Your task to perform on an android device: turn off data saver in the chrome app Image 0: 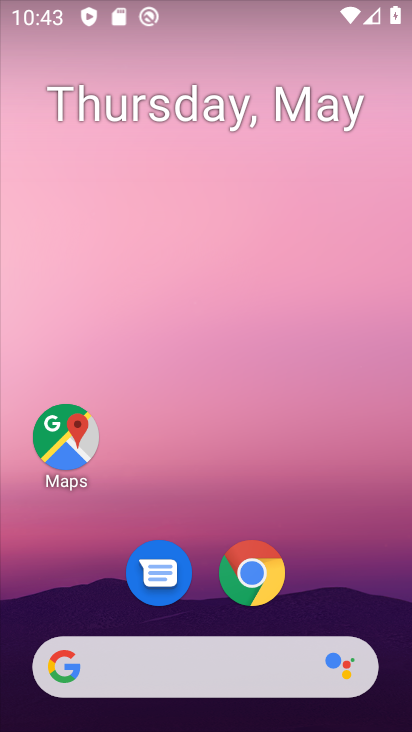
Step 0: click (252, 575)
Your task to perform on an android device: turn off data saver in the chrome app Image 1: 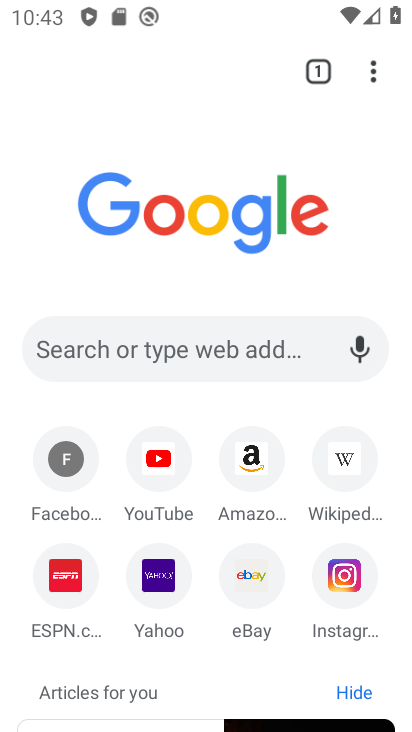
Step 1: drag from (389, 90) to (203, 617)
Your task to perform on an android device: turn off data saver in the chrome app Image 2: 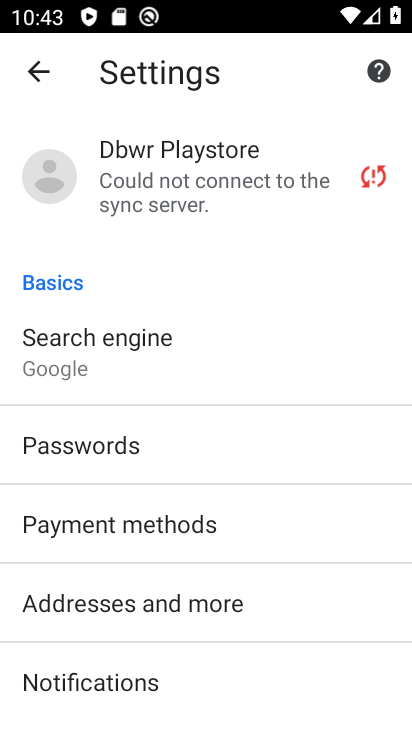
Step 2: drag from (137, 677) to (248, 210)
Your task to perform on an android device: turn off data saver in the chrome app Image 3: 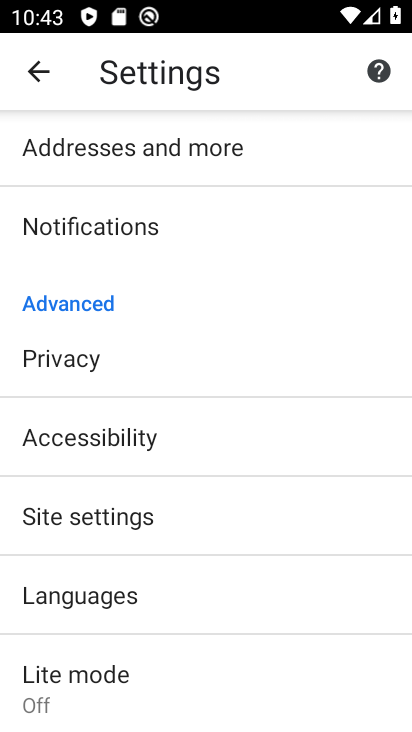
Step 3: click (128, 675)
Your task to perform on an android device: turn off data saver in the chrome app Image 4: 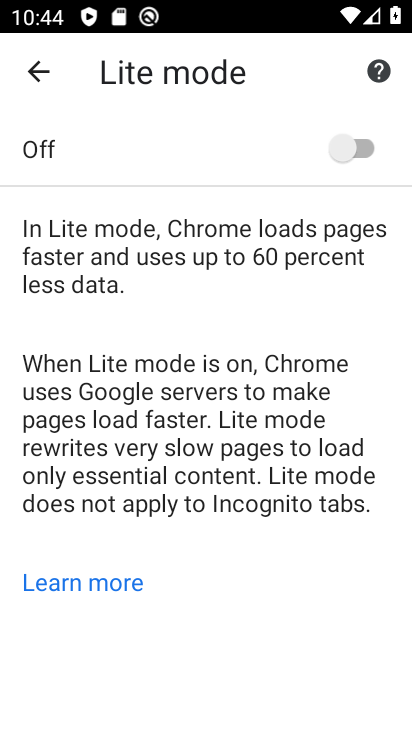
Step 4: task complete